Your task to perform on an android device: Open Google Image 0: 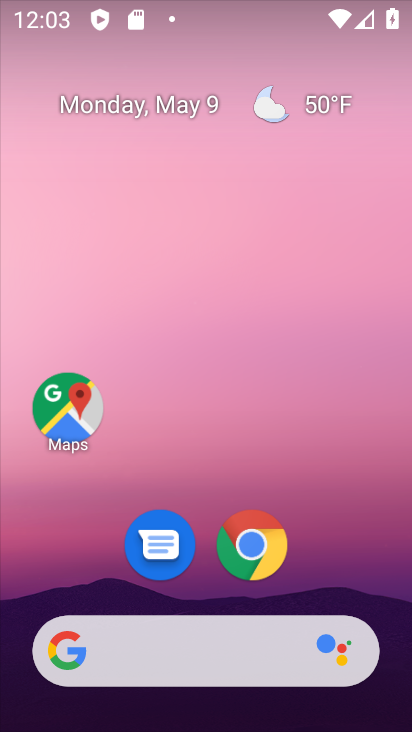
Step 0: drag from (221, 567) to (214, 131)
Your task to perform on an android device: Open Google Image 1: 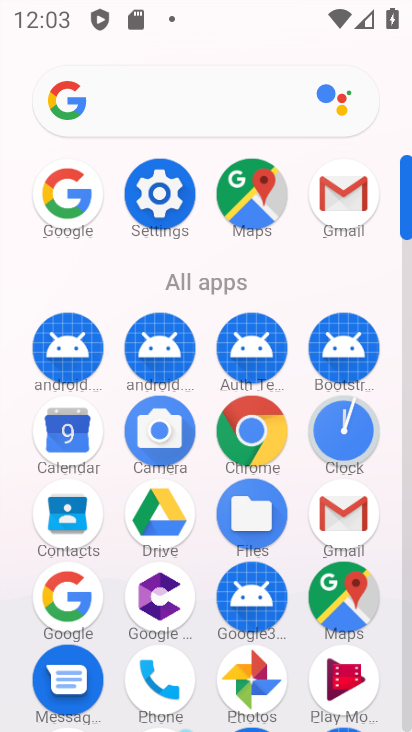
Step 1: click (52, 202)
Your task to perform on an android device: Open Google Image 2: 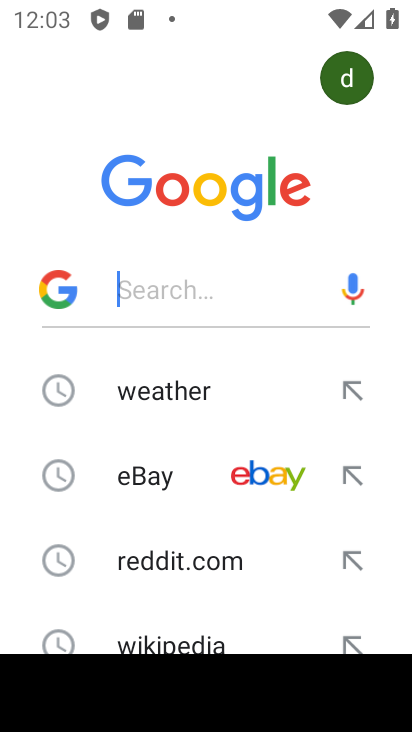
Step 2: task complete